Your task to perform on an android device: add a contact Image 0: 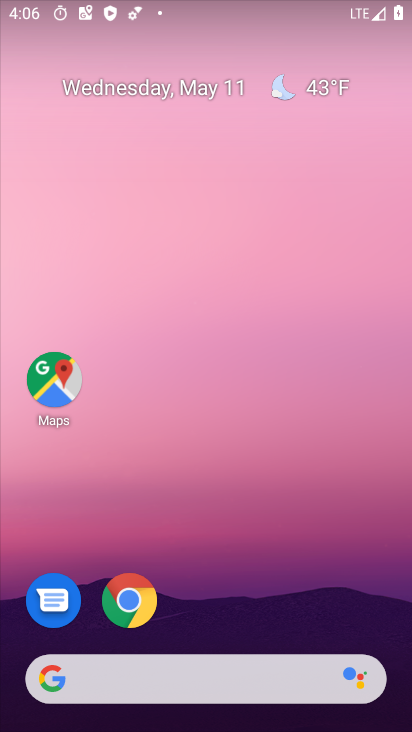
Step 0: drag from (289, 625) to (304, 75)
Your task to perform on an android device: add a contact Image 1: 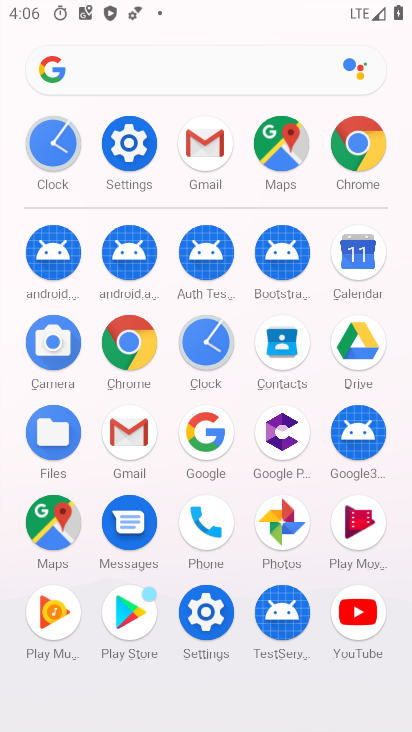
Step 1: click (283, 347)
Your task to perform on an android device: add a contact Image 2: 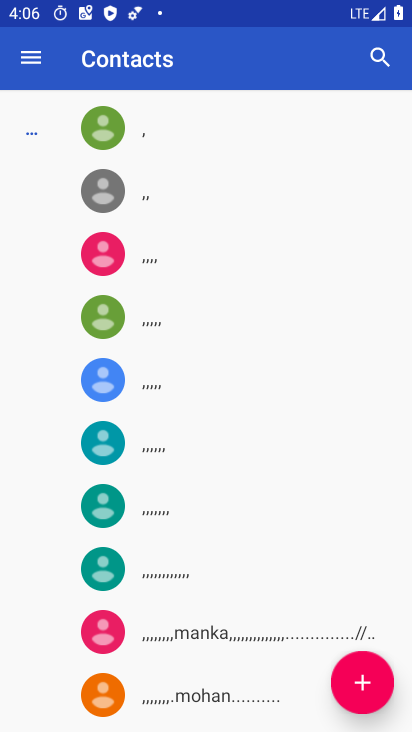
Step 2: click (360, 689)
Your task to perform on an android device: add a contact Image 3: 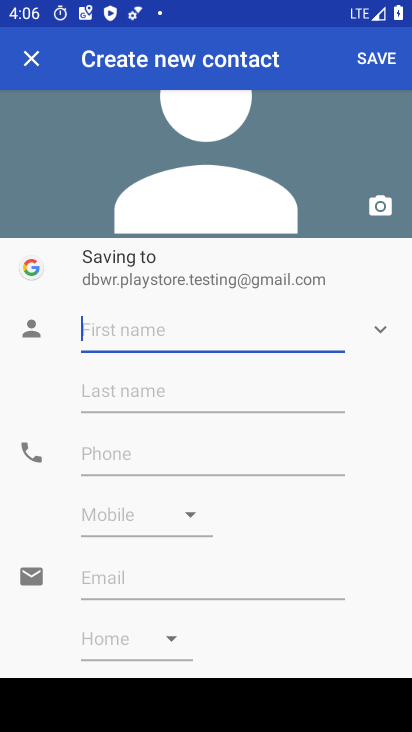
Step 3: click (115, 331)
Your task to perform on an android device: add a contact Image 4: 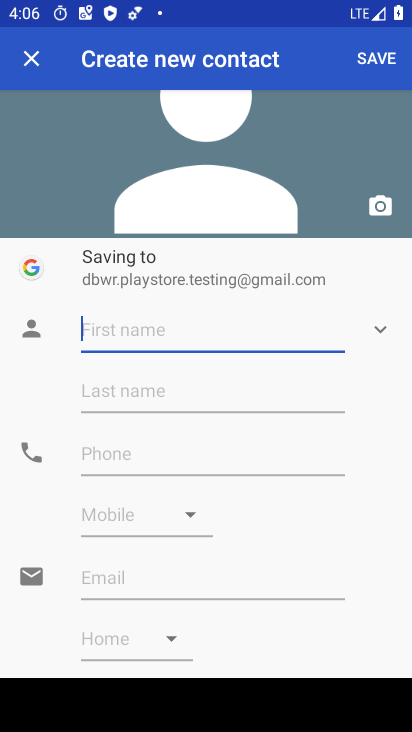
Step 4: type "summy"
Your task to perform on an android device: add a contact Image 5: 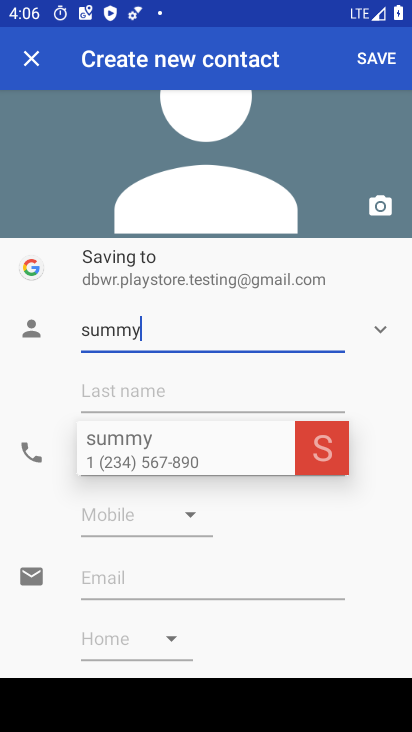
Step 5: click (383, 473)
Your task to perform on an android device: add a contact Image 6: 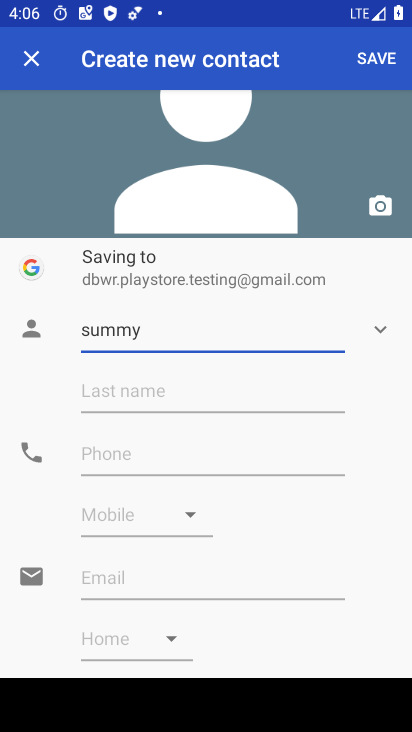
Step 6: click (116, 462)
Your task to perform on an android device: add a contact Image 7: 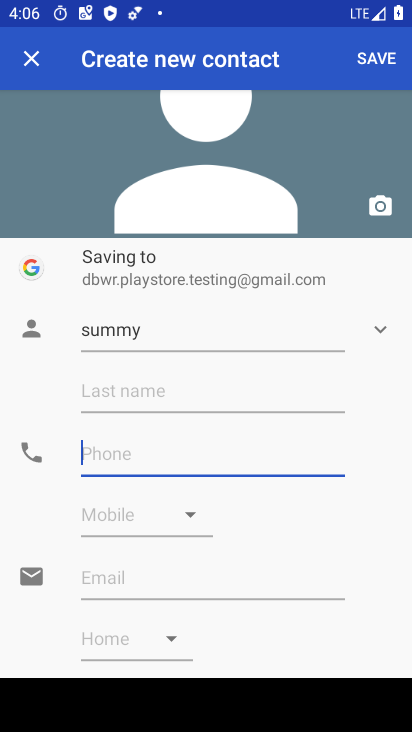
Step 7: type "9876554433"
Your task to perform on an android device: add a contact Image 8: 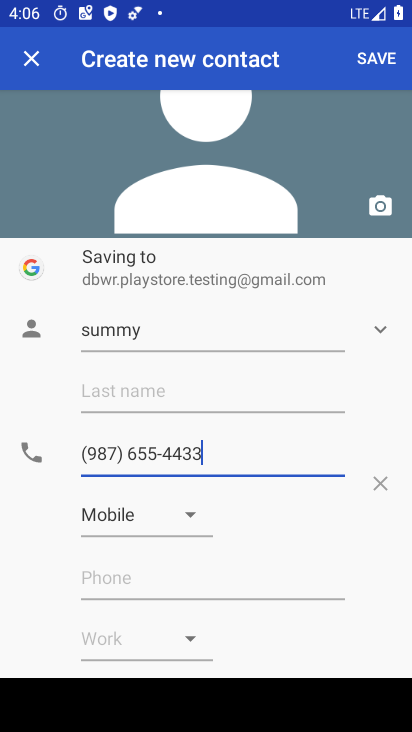
Step 8: click (383, 57)
Your task to perform on an android device: add a contact Image 9: 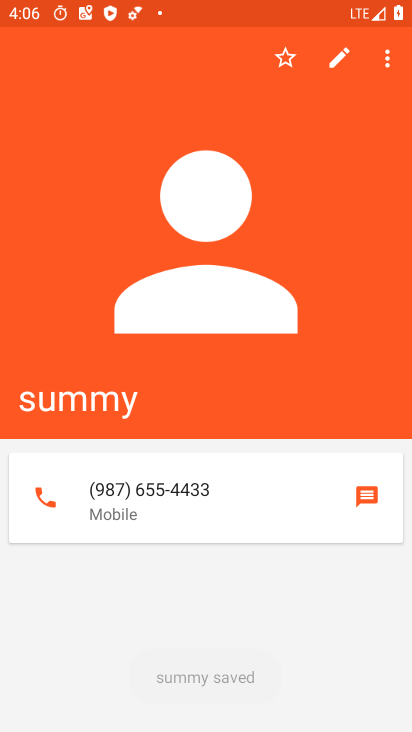
Step 9: task complete